Your task to perform on an android device: choose inbox layout in the gmail app Image 0: 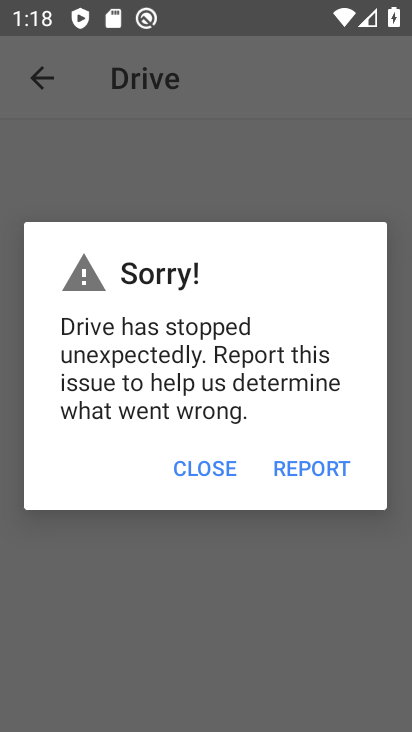
Step 0: press home button
Your task to perform on an android device: choose inbox layout in the gmail app Image 1: 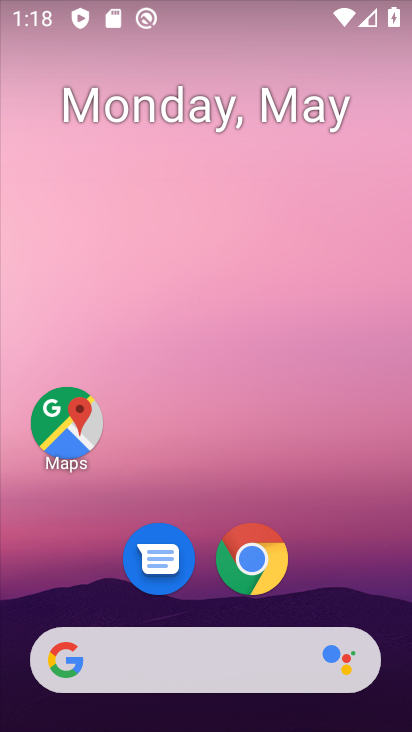
Step 1: drag from (321, 544) to (223, 37)
Your task to perform on an android device: choose inbox layout in the gmail app Image 2: 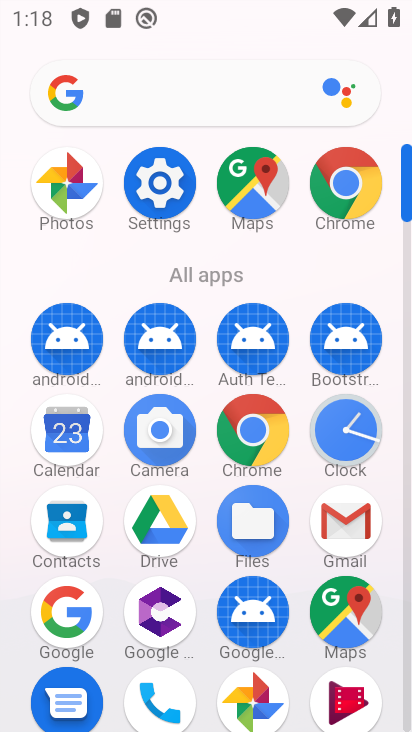
Step 2: click (354, 516)
Your task to perform on an android device: choose inbox layout in the gmail app Image 3: 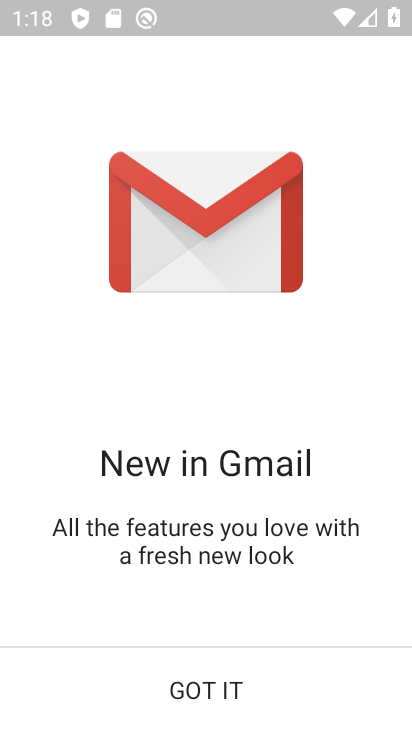
Step 3: click (228, 683)
Your task to perform on an android device: choose inbox layout in the gmail app Image 4: 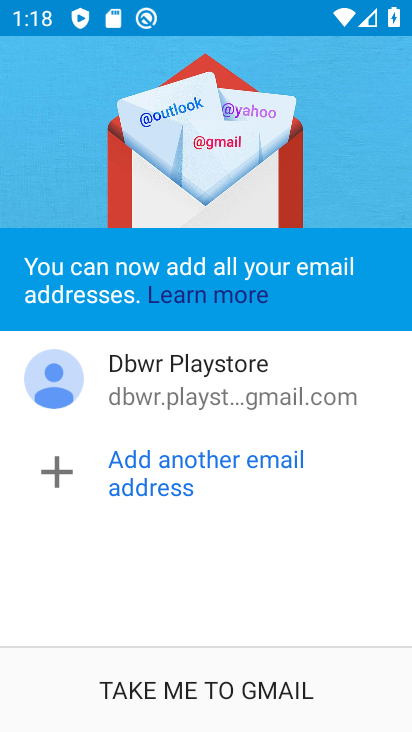
Step 4: click (217, 701)
Your task to perform on an android device: choose inbox layout in the gmail app Image 5: 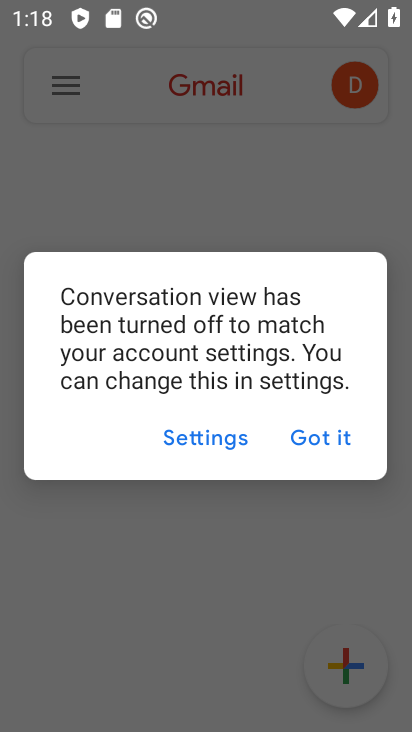
Step 5: click (339, 443)
Your task to perform on an android device: choose inbox layout in the gmail app Image 6: 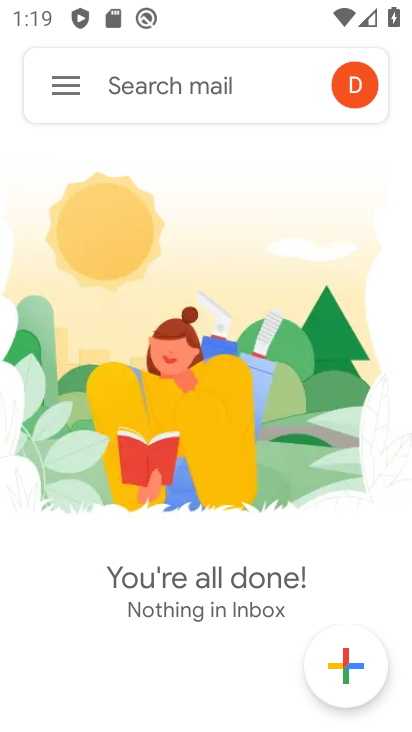
Step 6: click (48, 86)
Your task to perform on an android device: choose inbox layout in the gmail app Image 7: 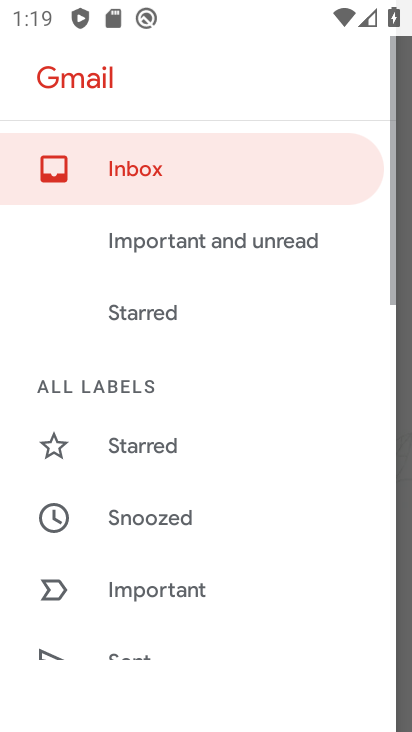
Step 7: drag from (167, 615) to (202, 114)
Your task to perform on an android device: choose inbox layout in the gmail app Image 8: 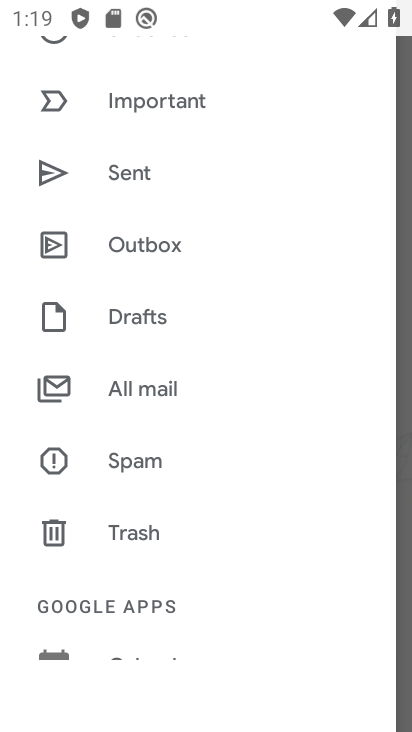
Step 8: drag from (175, 589) to (256, 87)
Your task to perform on an android device: choose inbox layout in the gmail app Image 9: 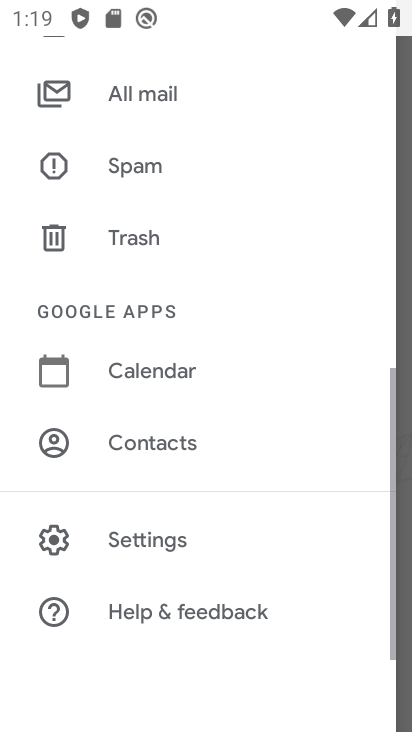
Step 9: click (160, 551)
Your task to perform on an android device: choose inbox layout in the gmail app Image 10: 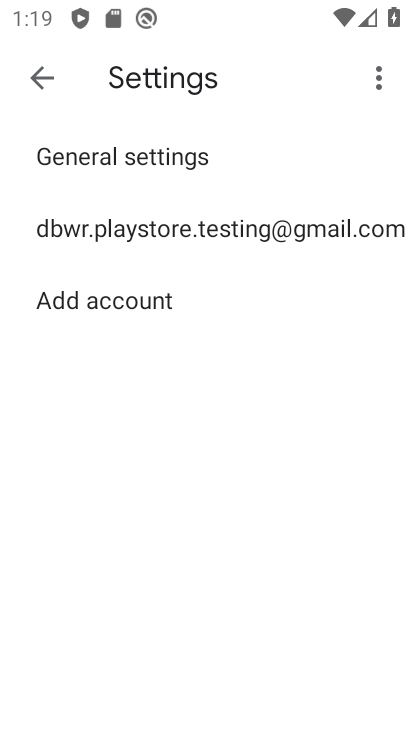
Step 10: click (121, 220)
Your task to perform on an android device: choose inbox layout in the gmail app Image 11: 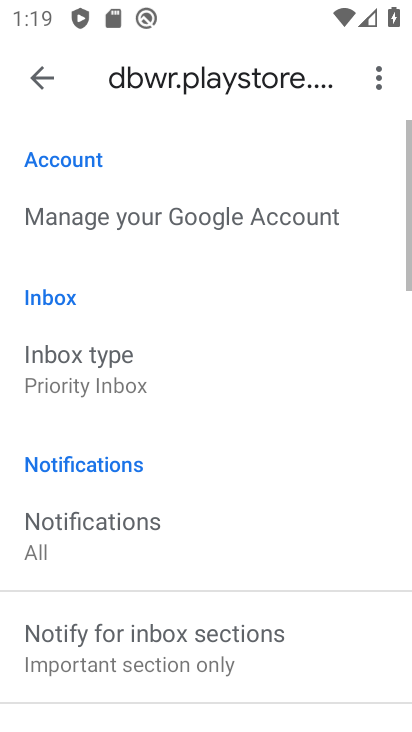
Step 11: click (90, 359)
Your task to perform on an android device: choose inbox layout in the gmail app Image 12: 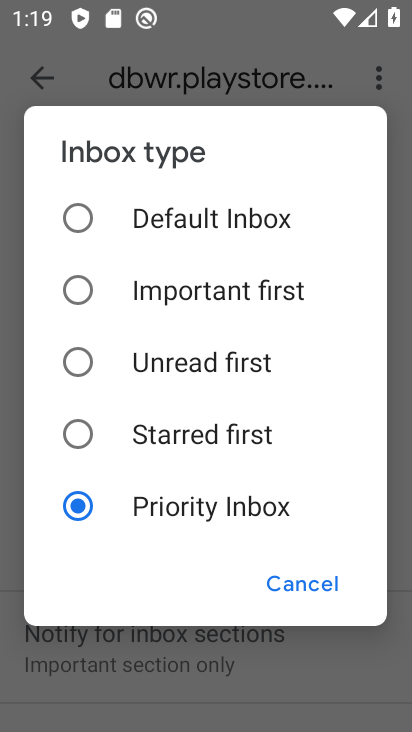
Step 12: task complete